Your task to perform on an android device: Search for pizza restaurants on Maps Image 0: 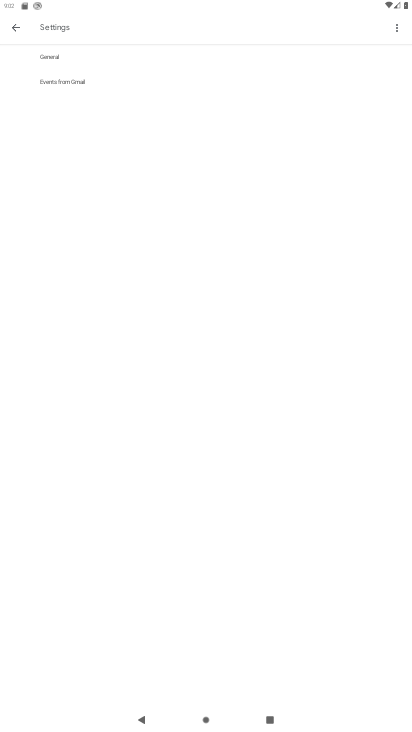
Step 0: press home button
Your task to perform on an android device: Search for pizza restaurants on Maps Image 1: 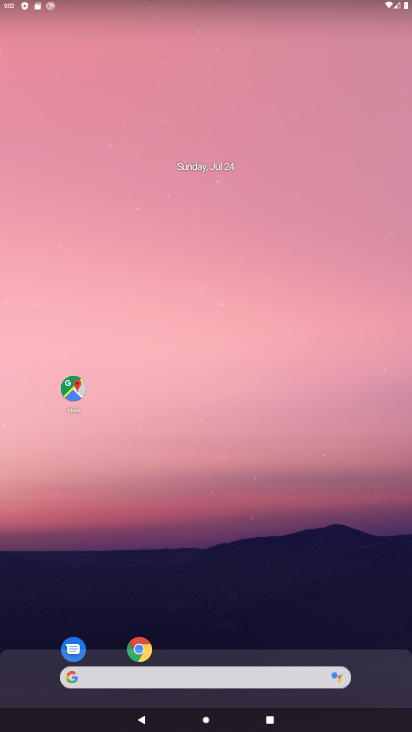
Step 1: drag from (357, 505) to (371, 59)
Your task to perform on an android device: Search for pizza restaurants on Maps Image 2: 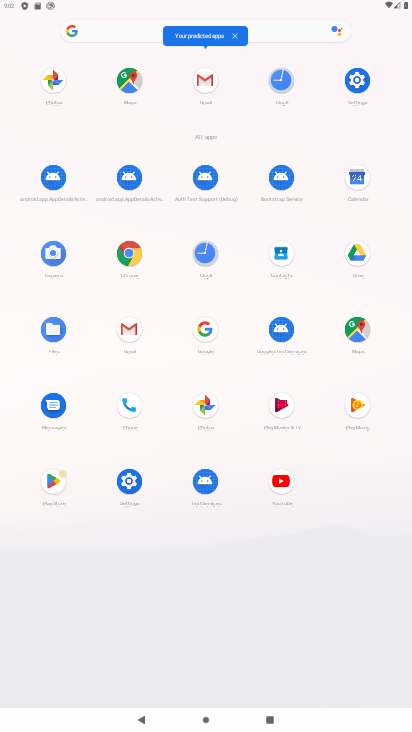
Step 2: click (356, 328)
Your task to perform on an android device: Search for pizza restaurants on Maps Image 3: 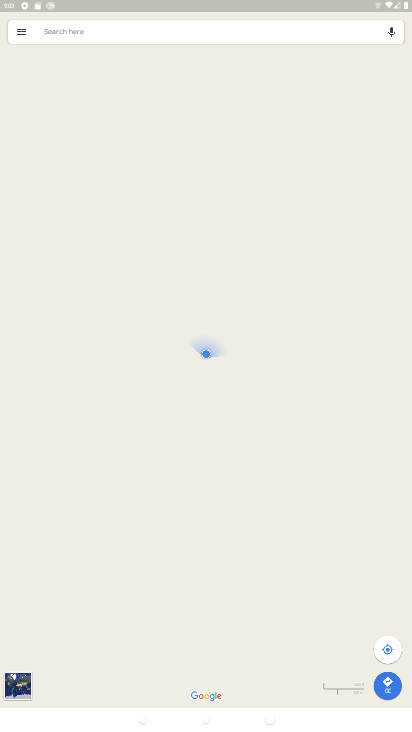
Step 3: click (149, 30)
Your task to perform on an android device: Search for pizza restaurants on Maps Image 4: 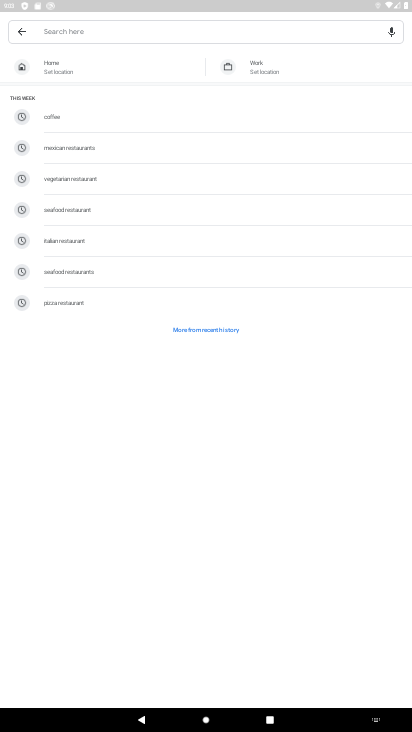
Step 4: click (106, 30)
Your task to perform on an android device: Search for pizza restaurants on Maps Image 5: 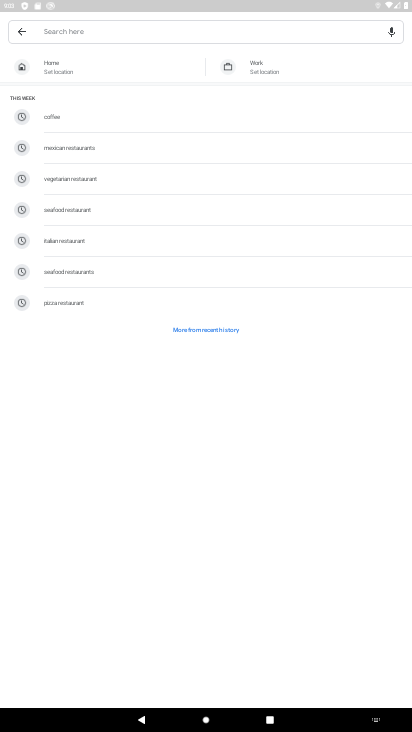
Step 5: type "pizza restaurants"
Your task to perform on an android device: Search for pizza restaurants on Maps Image 6: 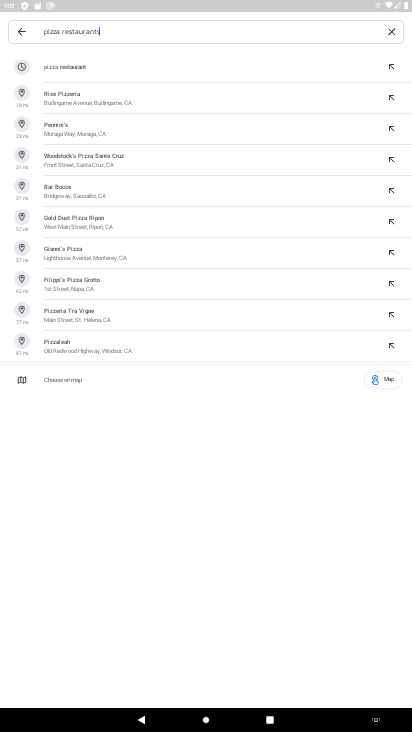
Step 6: click (156, 64)
Your task to perform on an android device: Search for pizza restaurants on Maps Image 7: 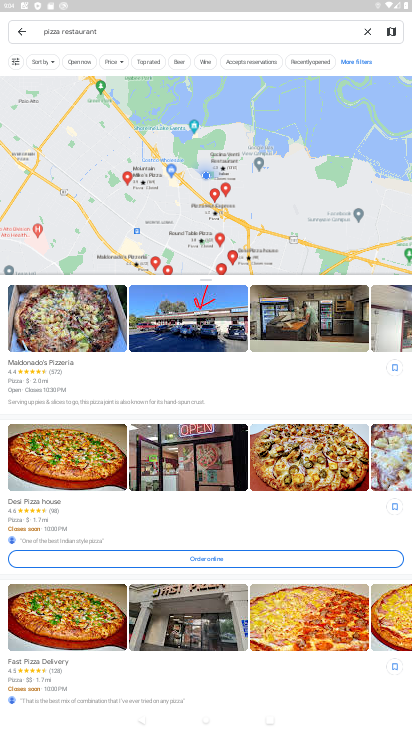
Step 7: task complete